Your task to perform on an android device: Add "lg ultragear" to the cart on ebay.com Image 0: 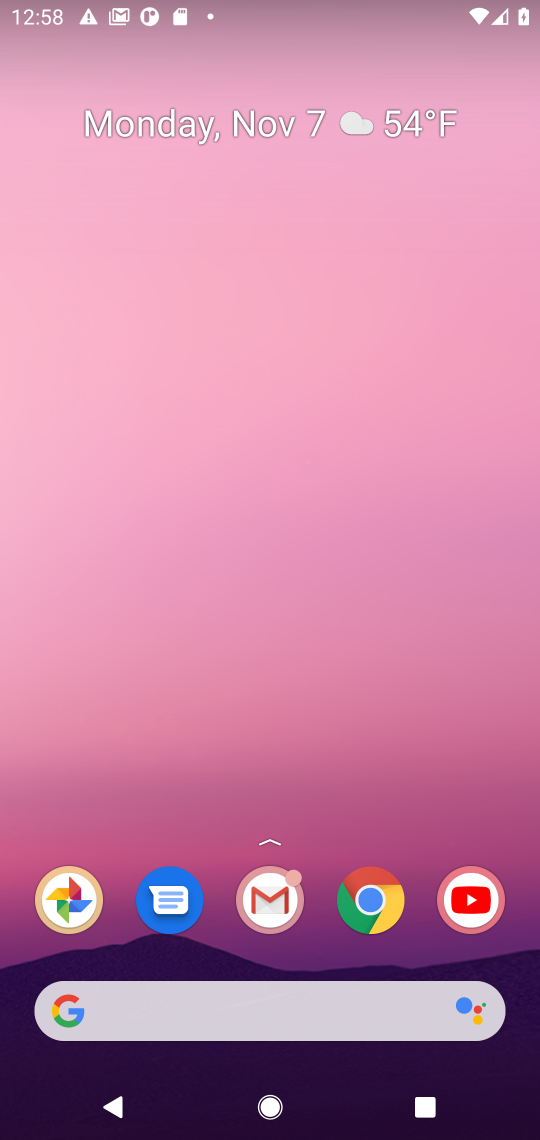
Step 0: click (373, 1008)
Your task to perform on an android device: Add "lg ultragear" to the cart on ebay.com Image 1: 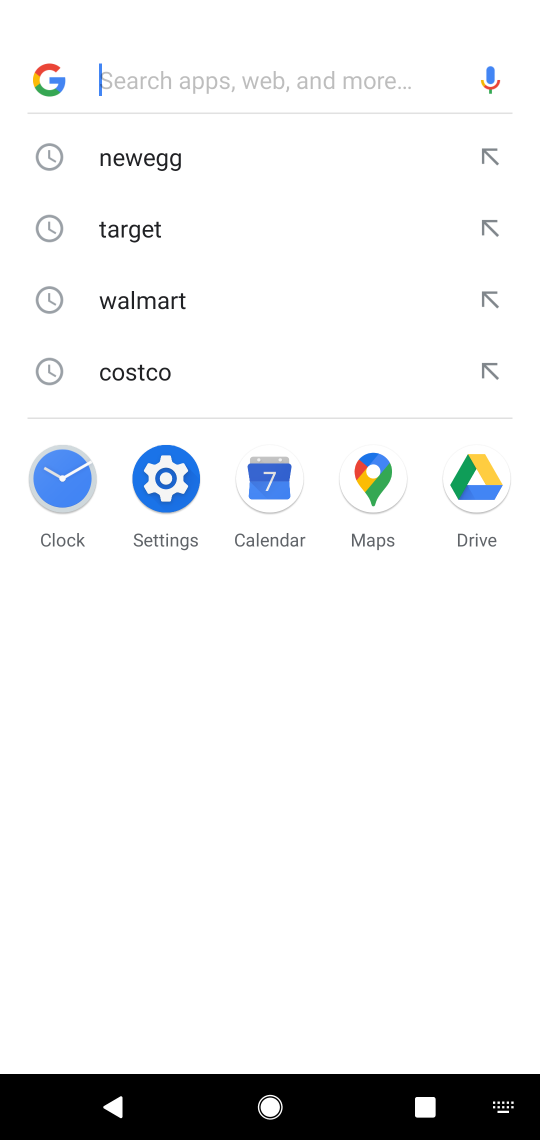
Step 1: type "ebay"
Your task to perform on an android device: Add "lg ultragear" to the cart on ebay.com Image 2: 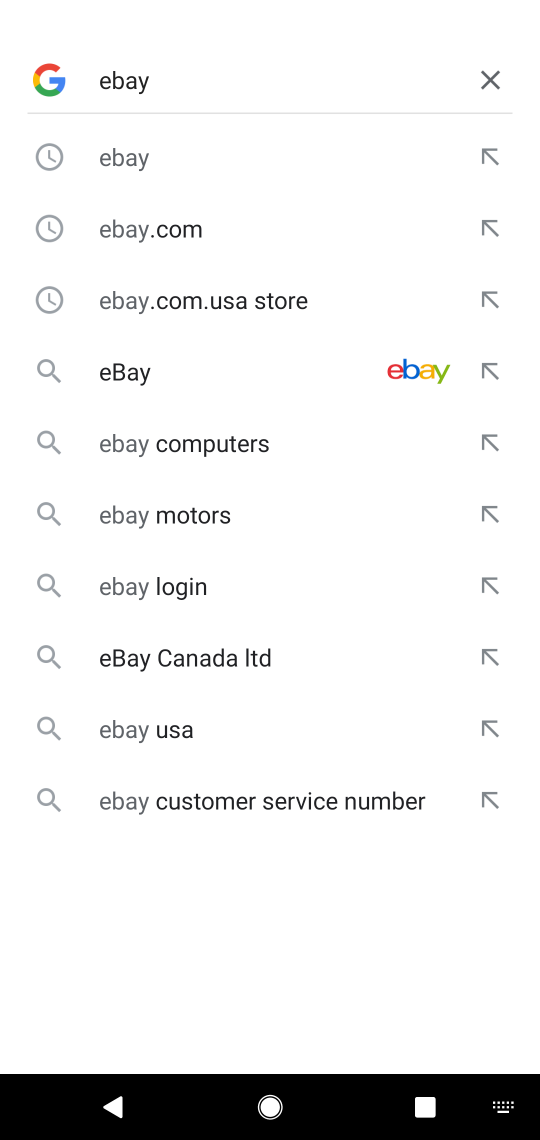
Step 2: click (325, 352)
Your task to perform on an android device: Add "lg ultragear" to the cart on ebay.com Image 3: 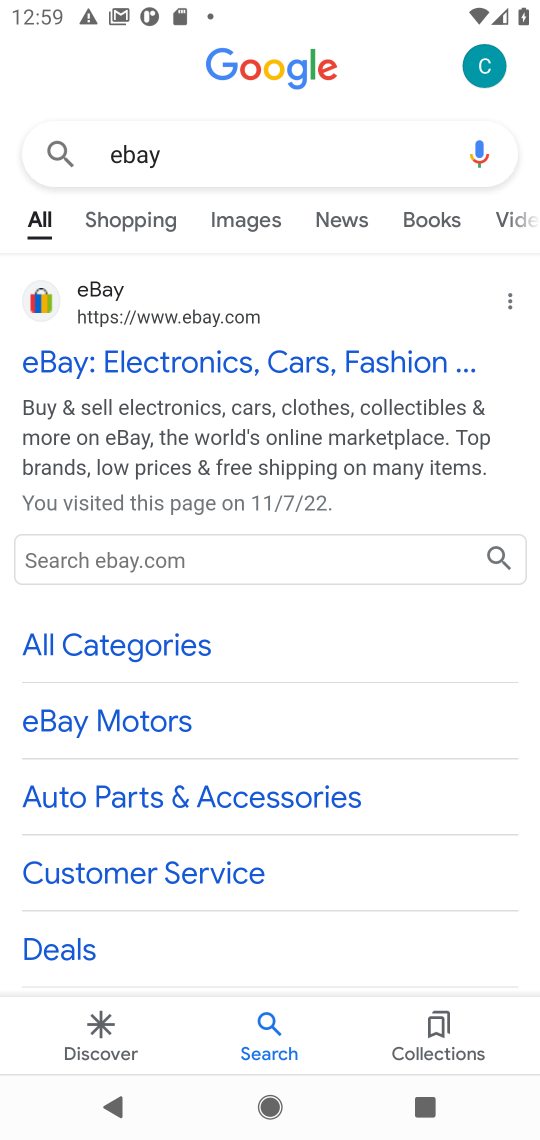
Step 3: click (90, 347)
Your task to perform on an android device: Add "lg ultragear" to the cart on ebay.com Image 4: 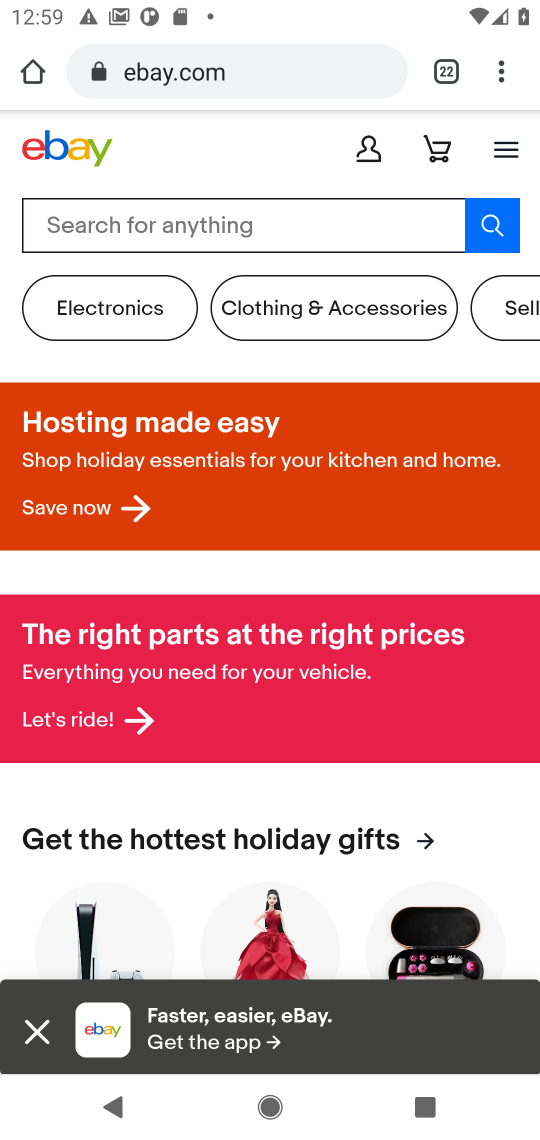
Step 4: task complete